Your task to perform on an android device: Open Google Maps Image 0: 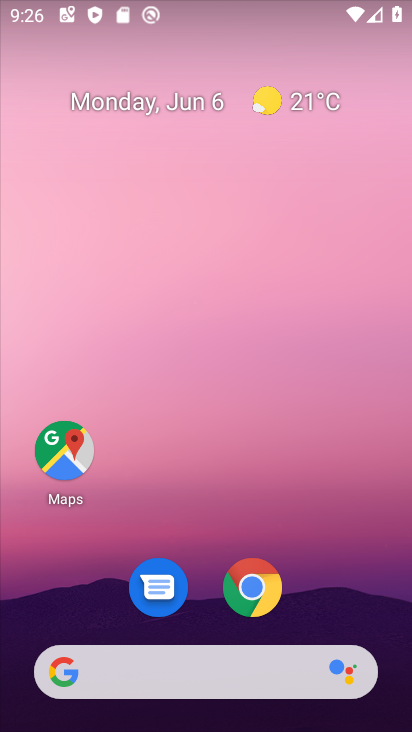
Step 0: click (75, 450)
Your task to perform on an android device: Open Google Maps Image 1: 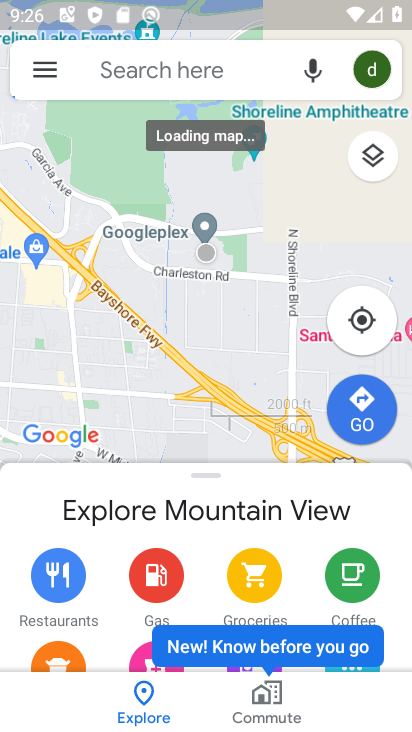
Step 1: task complete